Your task to perform on an android device: What's the weather going to be tomorrow? Image 0: 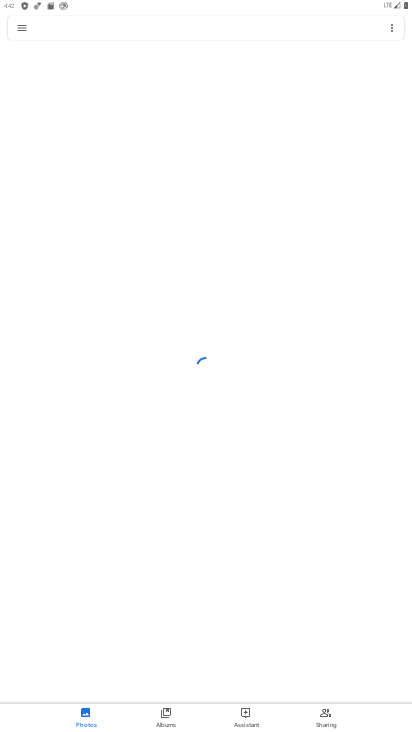
Step 0: press home button
Your task to perform on an android device: What's the weather going to be tomorrow? Image 1: 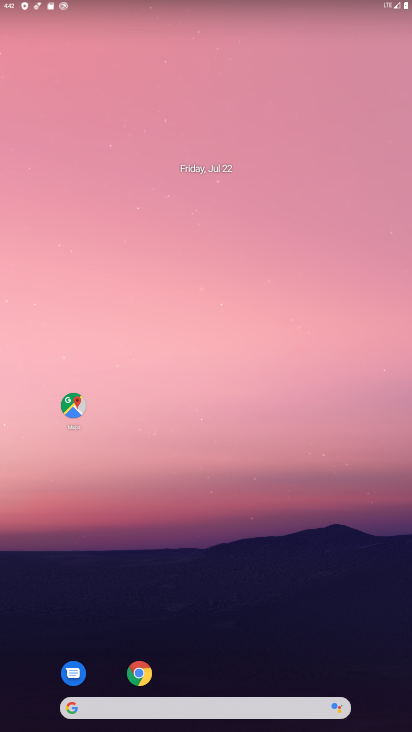
Step 1: click (71, 712)
Your task to perform on an android device: What's the weather going to be tomorrow? Image 2: 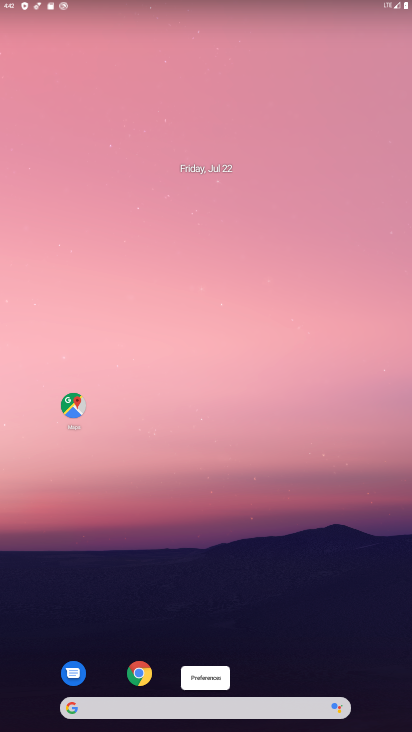
Step 2: click (68, 709)
Your task to perform on an android device: What's the weather going to be tomorrow? Image 3: 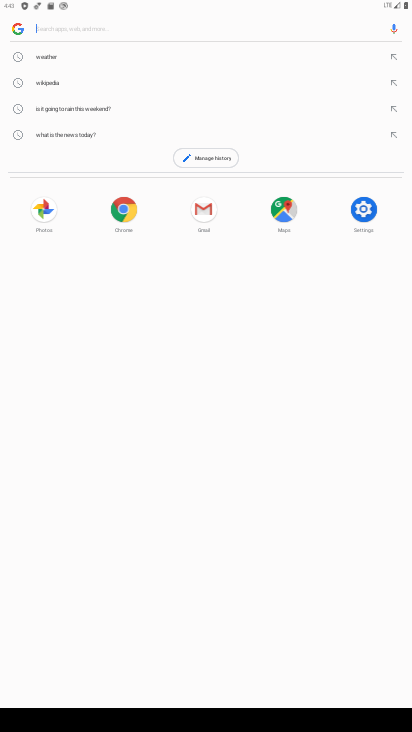
Step 3: type "What's the weather going to be tomorrow?"
Your task to perform on an android device: What's the weather going to be tomorrow? Image 4: 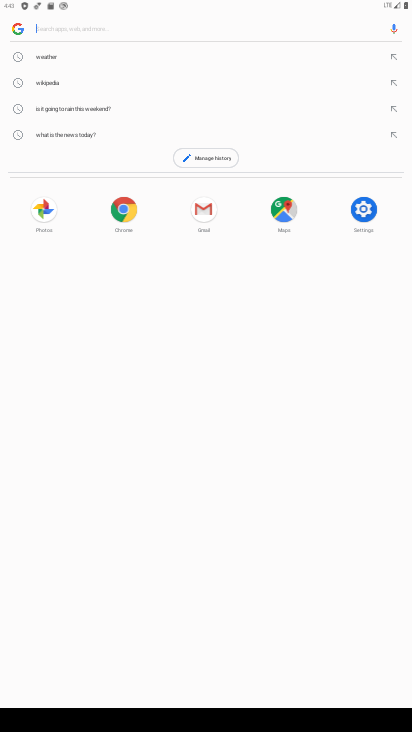
Step 4: click (43, 29)
Your task to perform on an android device: What's the weather going to be tomorrow? Image 5: 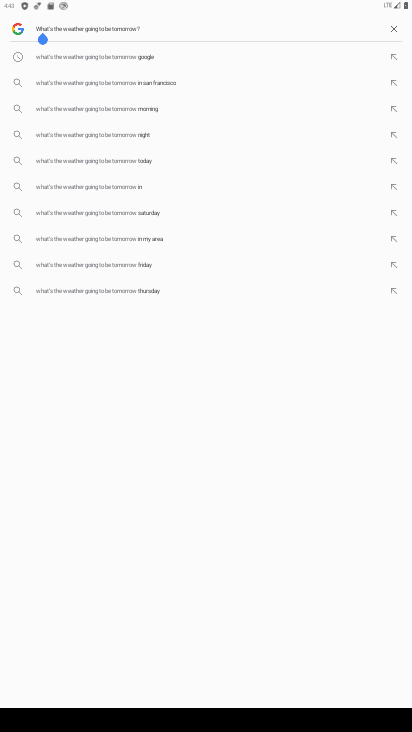
Step 5: press enter
Your task to perform on an android device: What's the weather going to be tomorrow? Image 6: 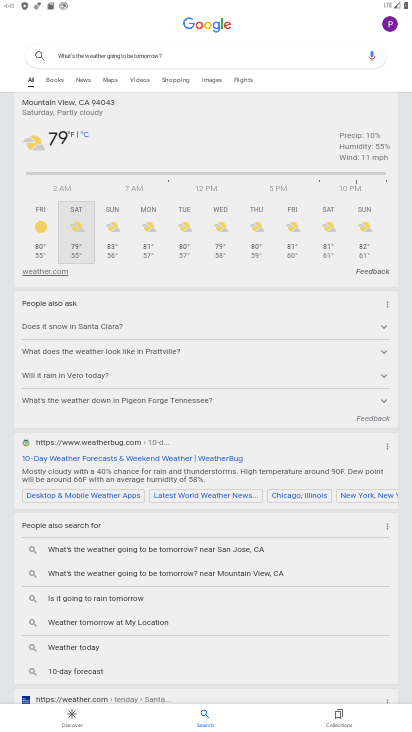
Step 6: task complete